Your task to perform on an android device: Open eBay Image 0: 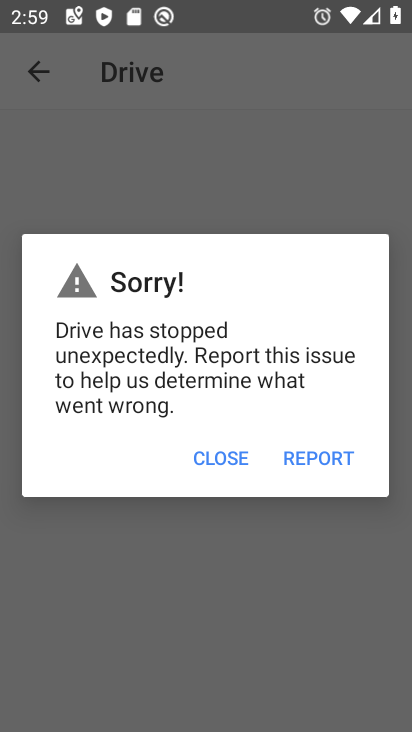
Step 0: press home button
Your task to perform on an android device: Open eBay Image 1: 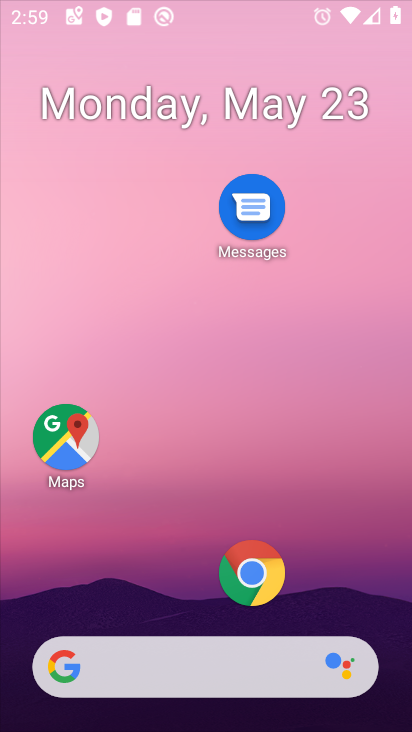
Step 1: drag from (237, 639) to (219, 131)
Your task to perform on an android device: Open eBay Image 2: 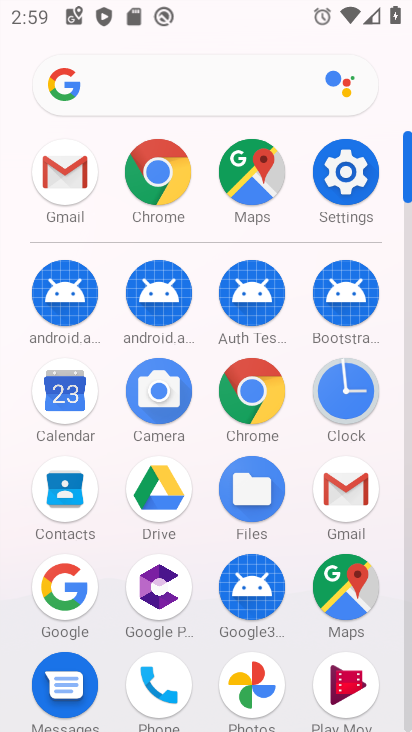
Step 2: click (253, 403)
Your task to perform on an android device: Open eBay Image 3: 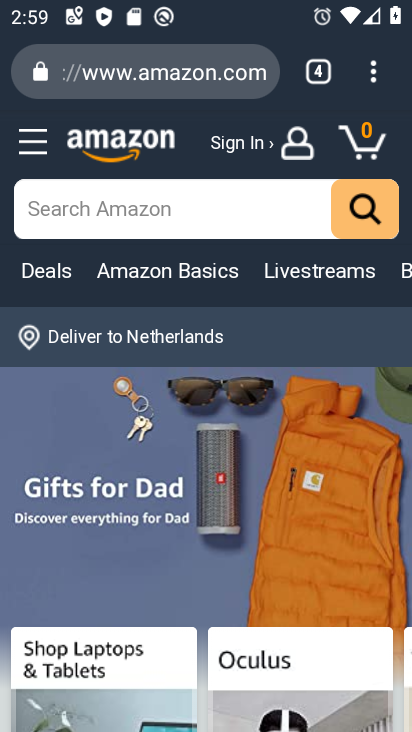
Step 3: click (155, 81)
Your task to perform on an android device: Open eBay Image 4: 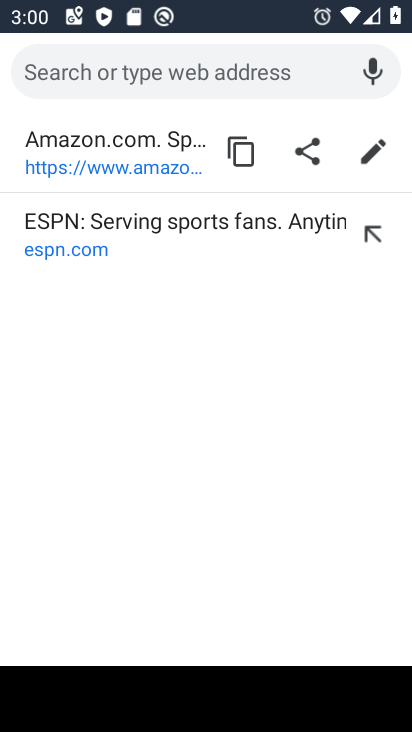
Step 4: type "ebay"
Your task to perform on an android device: Open eBay Image 5: 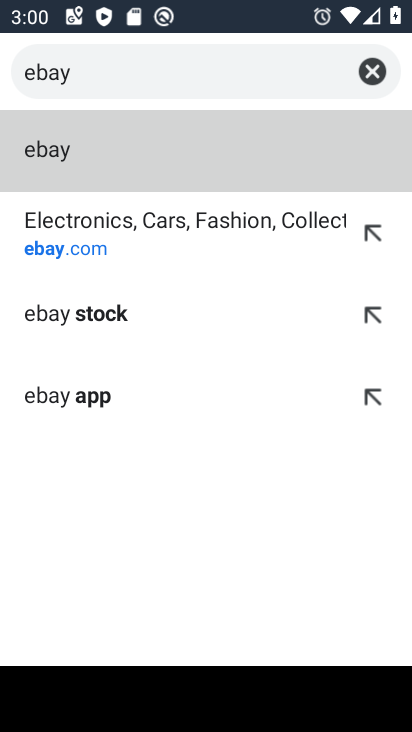
Step 5: click (194, 218)
Your task to perform on an android device: Open eBay Image 6: 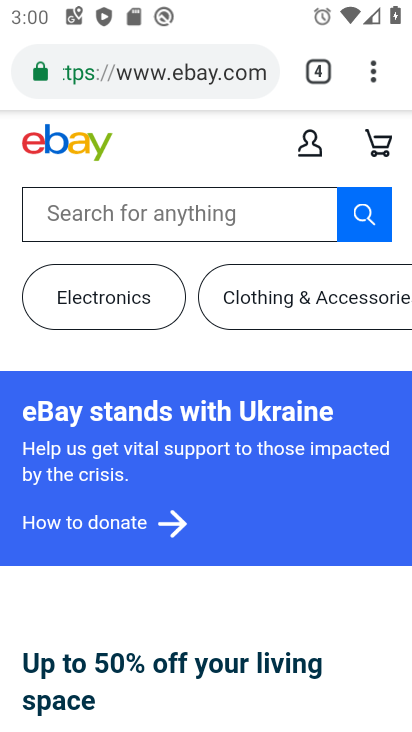
Step 6: task complete